Your task to perform on an android device: show emergency info Image 0: 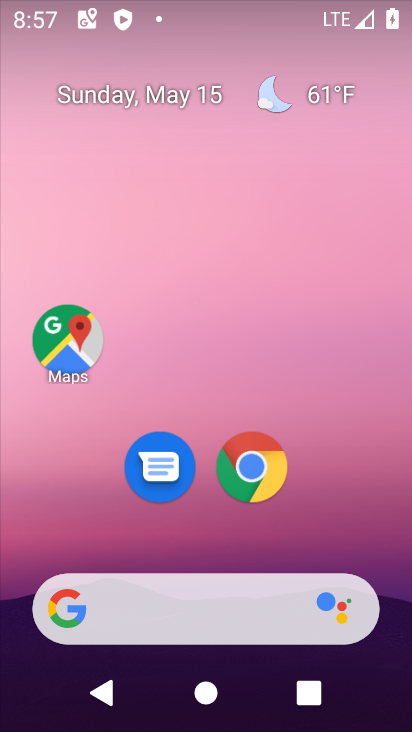
Step 0: drag from (201, 560) to (327, 68)
Your task to perform on an android device: show emergency info Image 1: 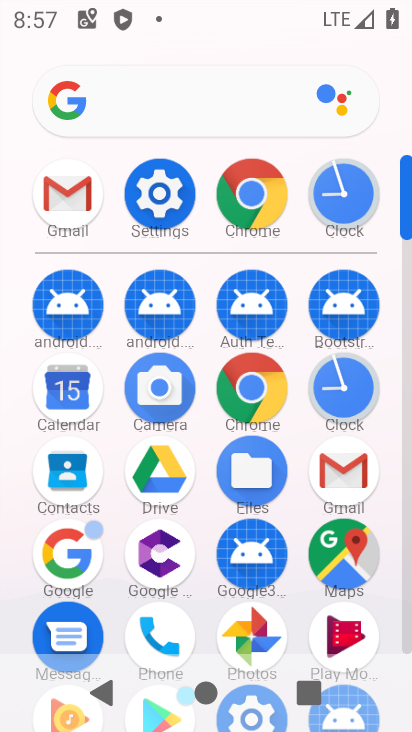
Step 1: click (162, 198)
Your task to perform on an android device: show emergency info Image 2: 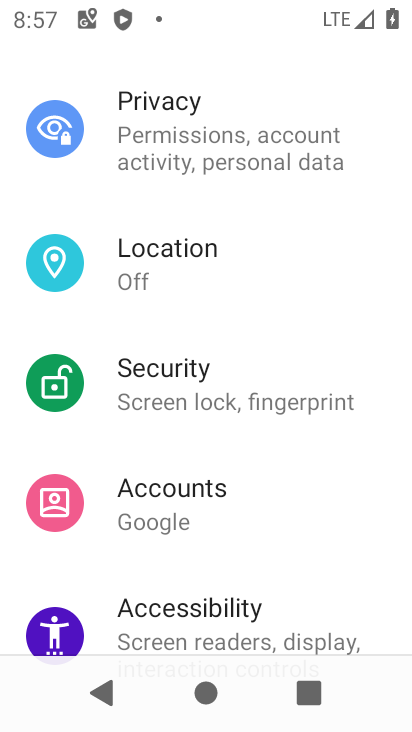
Step 2: drag from (144, 602) to (262, 156)
Your task to perform on an android device: show emergency info Image 3: 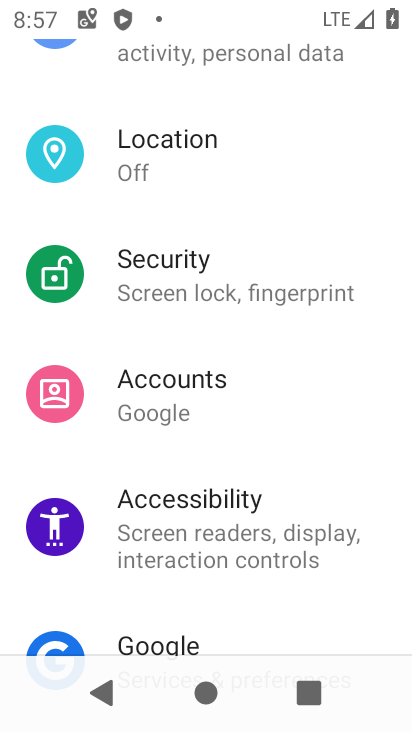
Step 3: drag from (171, 616) to (178, 194)
Your task to perform on an android device: show emergency info Image 4: 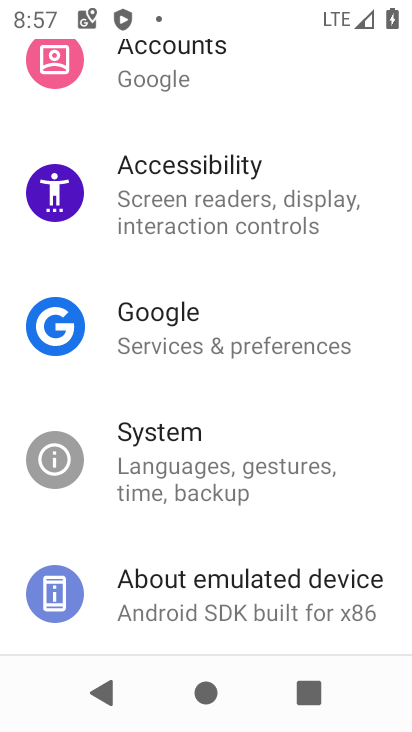
Step 4: click (236, 605)
Your task to perform on an android device: show emergency info Image 5: 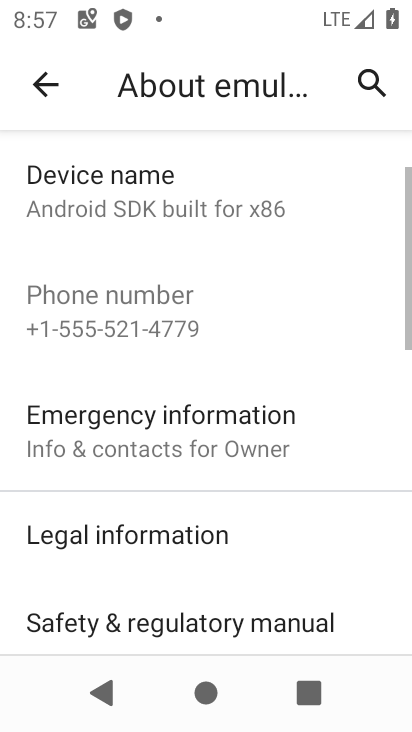
Step 5: click (210, 419)
Your task to perform on an android device: show emergency info Image 6: 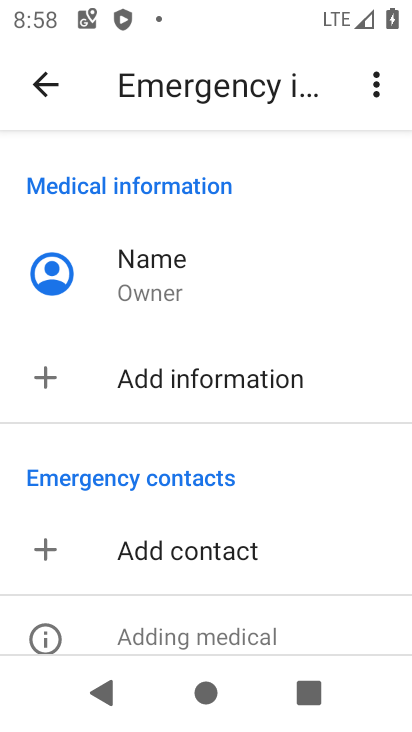
Step 6: task complete